Your task to perform on an android device: Open Youtube and go to the subscriptions tab Image 0: 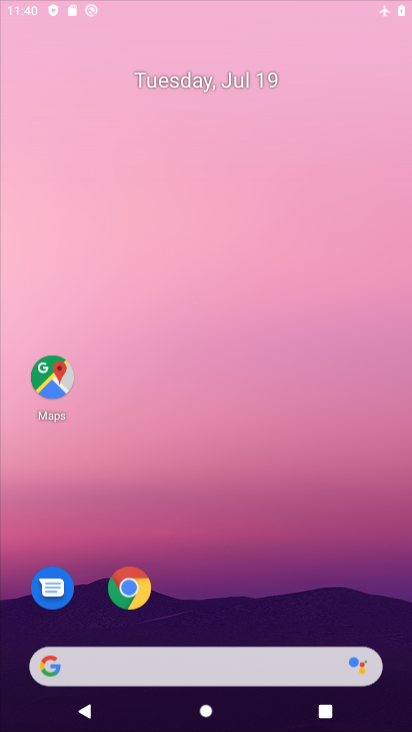
Step 0: click (198, 316)
Your task to perform on an android device: Open Youtube and go to the subscriptions tab Image 1: 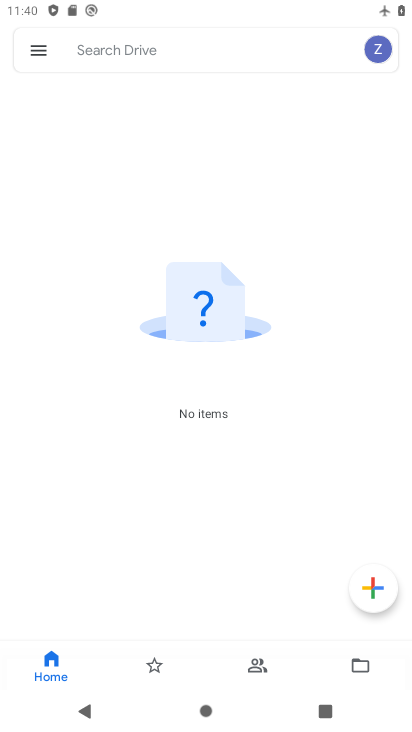
Step 1: press home button
Your task to perform on an android device: Open Youtube and go to the subscriptions tab Image 2: 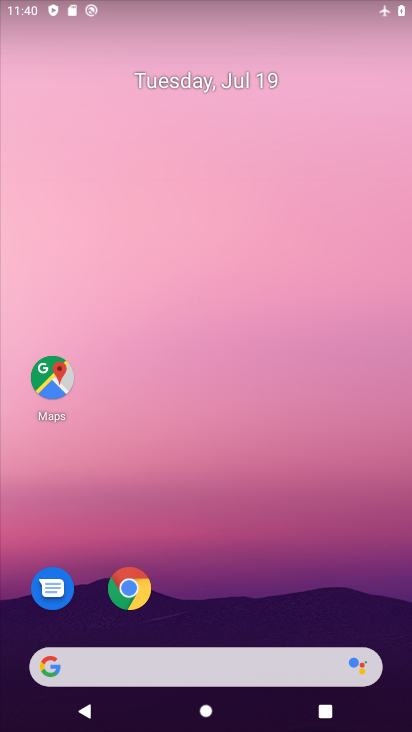
Step 2: drag from (231, 596) to (233, 440)
Your task to perform on an android device: Open Youtube and go to the subscriptions tab Image 3: 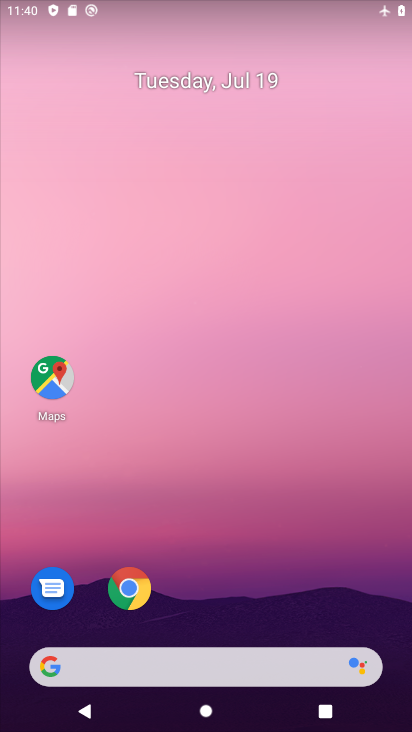
Step 3: click (267, 203)
Your task to perform on an android device: Open Youtube and go to the subscriptions tab Image 4: 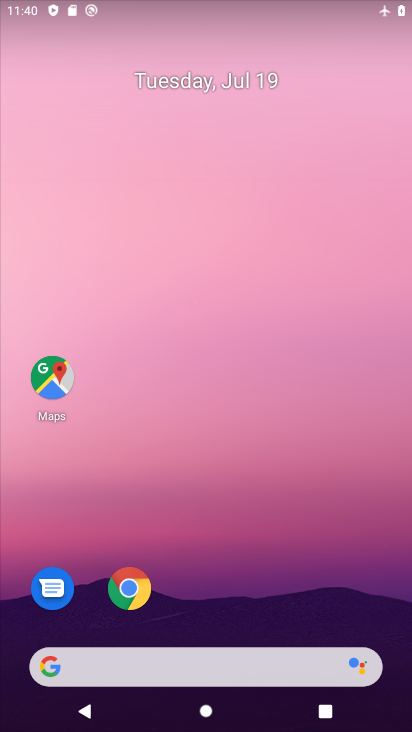
Step 4: drag from (250, 576) to (237, 387)
Your task to perform on an android device: Open Youtube and go to the subscriptions tab Image 5: 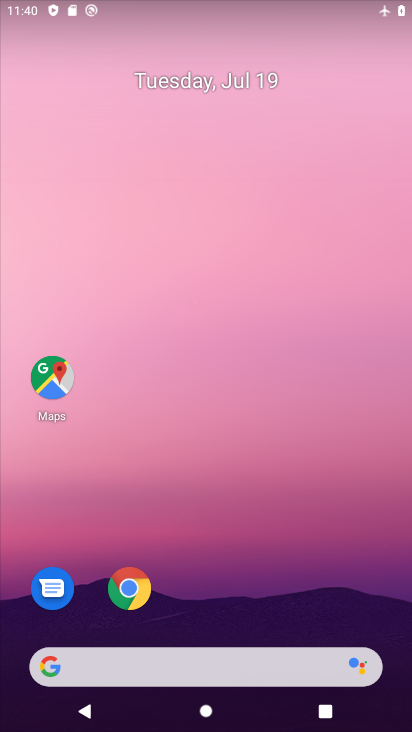
Step 5: drag from (209, 636) to (218, 264)
Your task to perform on an android device: Open Youtube and go to the subscriptions tab Image 6: 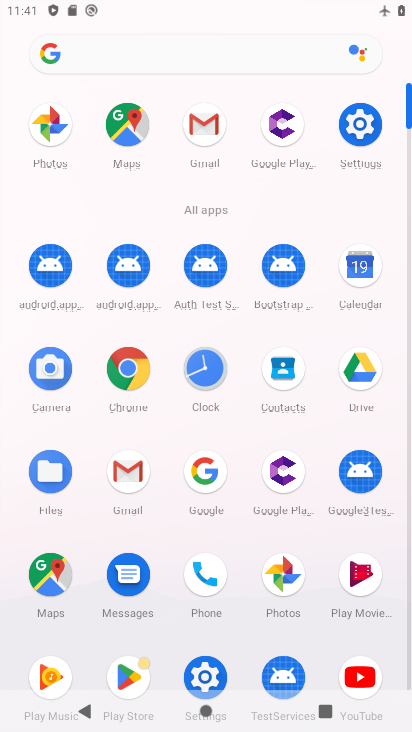
Step 6: click (370, 667)
Your task to perform on an android device: Open Youtube and go to the subscriptions tab Image 7: 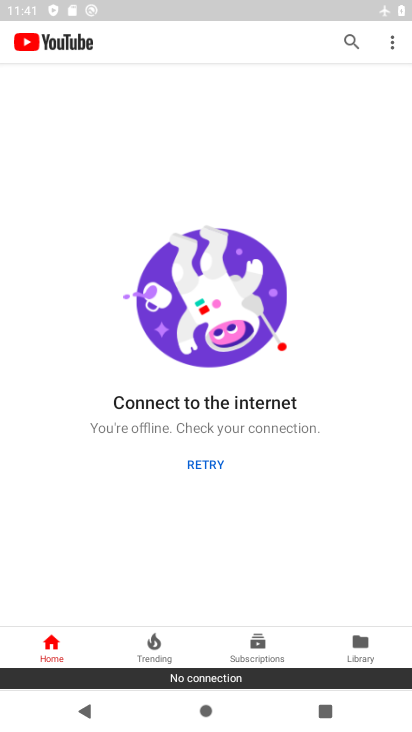
Step 7: click (266, 641)
Your task to perform on an android device: Open Youtube and go to the subscriptions tab Image 8: 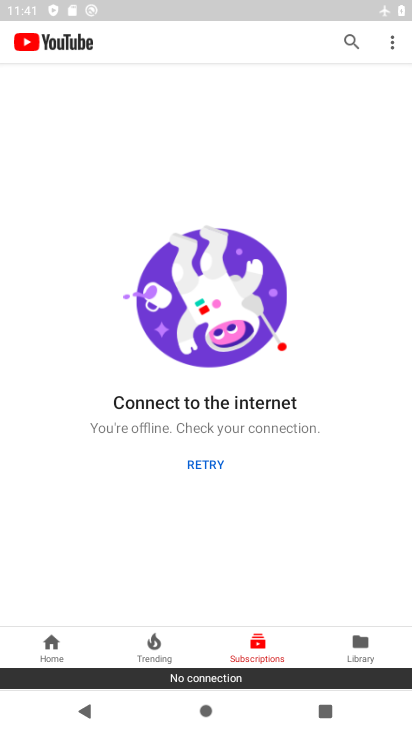
Step 8: task complete